Your task to perform on an android device: See recent photos Image 0: 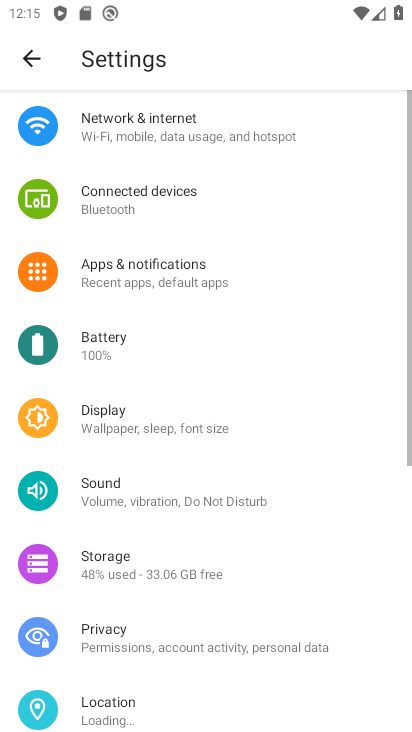
Step 0: press home button
Your task to perform on an android device: See recent photos Image 1: 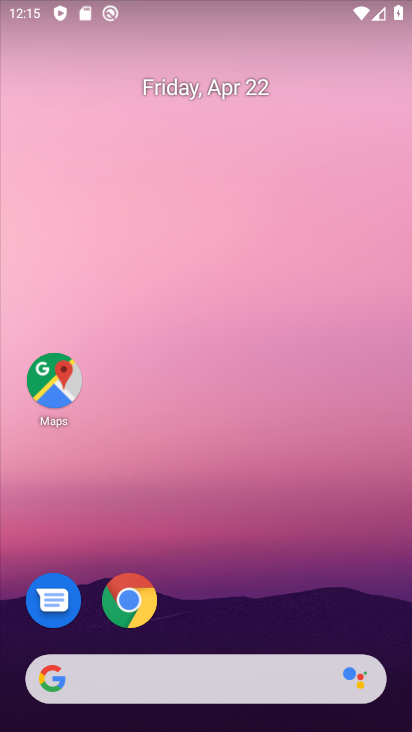
Step 1: drag from (209, 583) to (267, 29)
Your task to perform on an android device: See recent photos Image 2: 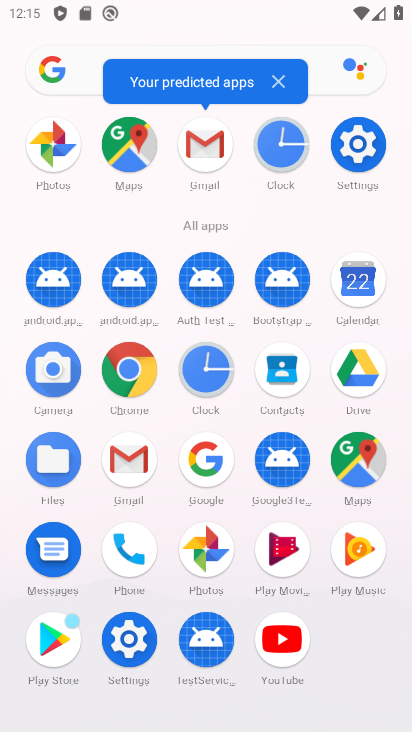
Step 2: click (200, 552)
Your task to perform on an android device: See recent photos Image 3: 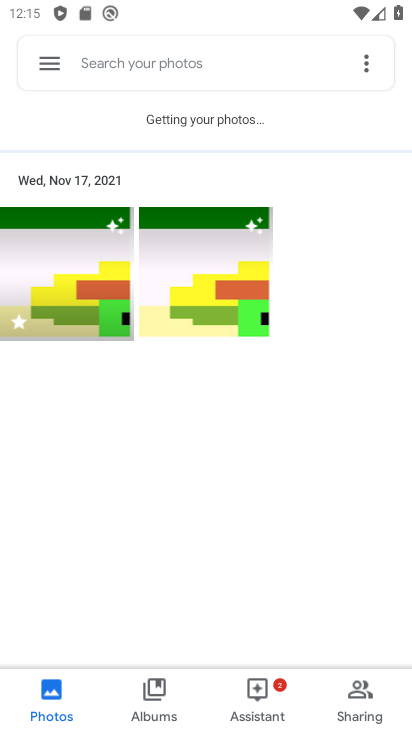
Step 3: click (51, 53)
Your task to perform on an android device: See recent photos Image 4: 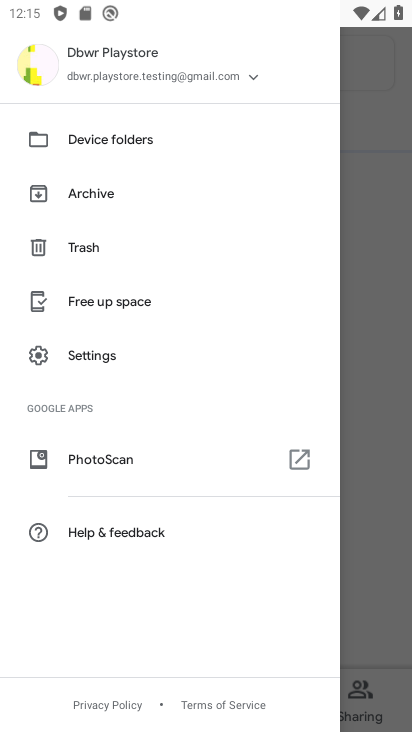
Step 4: task complete